Your task to perform on an android device: Go to Yahoo.com Image 0: 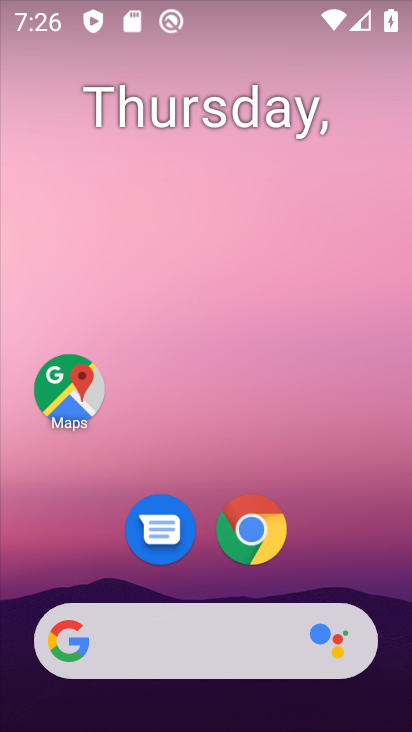
Step 0: drag from (375, 565) to (362, 205)
Your task to perform on an android device: Go to Yahoo.com Image 1: 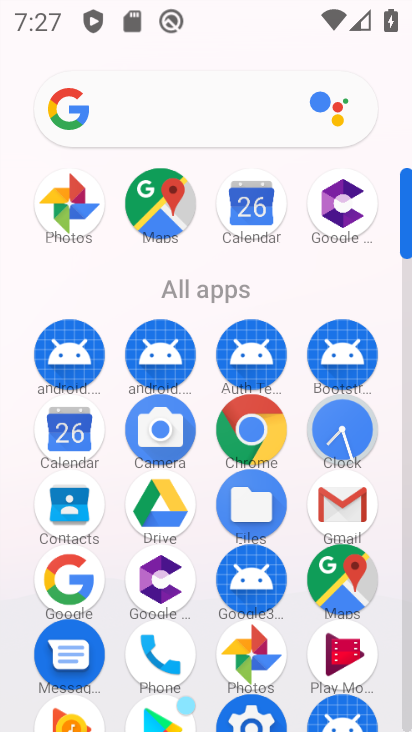
Step 1: click (255, 439)
Your task to perform on an android device: Go to Yahoo.com Image 2: 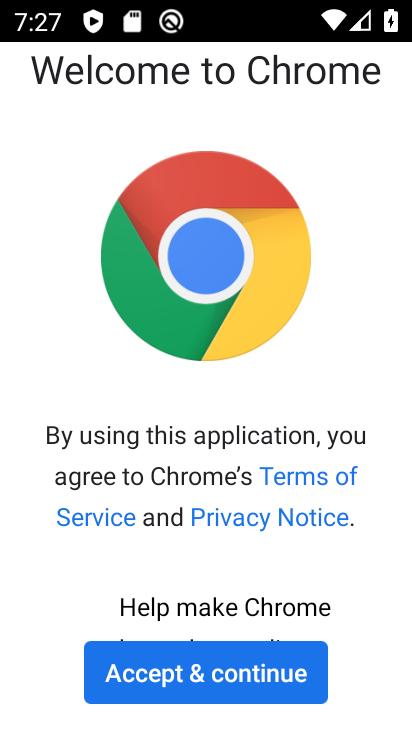
Step 2: click (203, 681)
Your task to perform on an android device: Go to Yahoo.com Image 3: 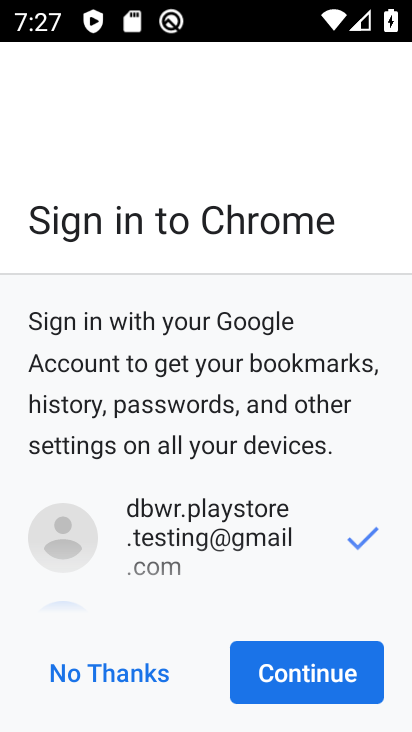
Step 3: click (256, 678)
Your task to perform on an android device: Go to Yahoo.com Image 4: 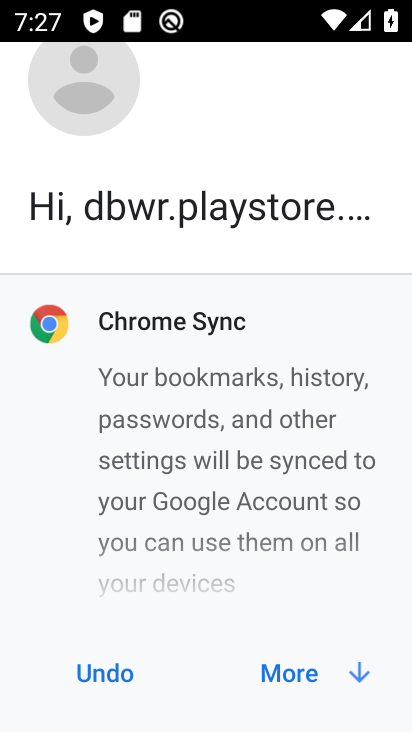
Step 4: click (275, 677)
Your task to perform on an android device: Go to Yahoo.com Image 5: 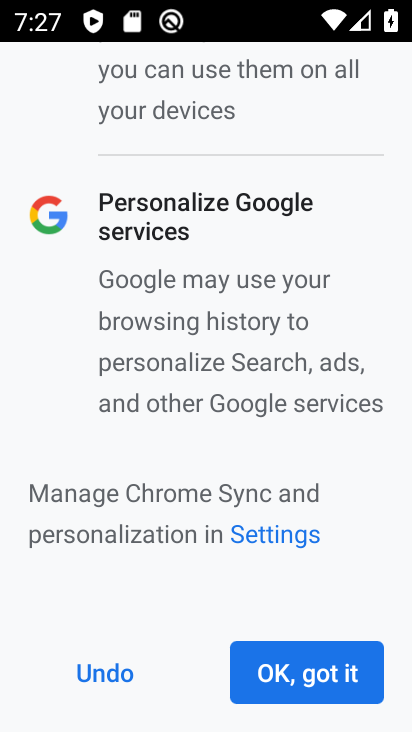
Step 5: click (275, 677)
Your task to perform on an android device: Go to Yahoo.com Image 6: 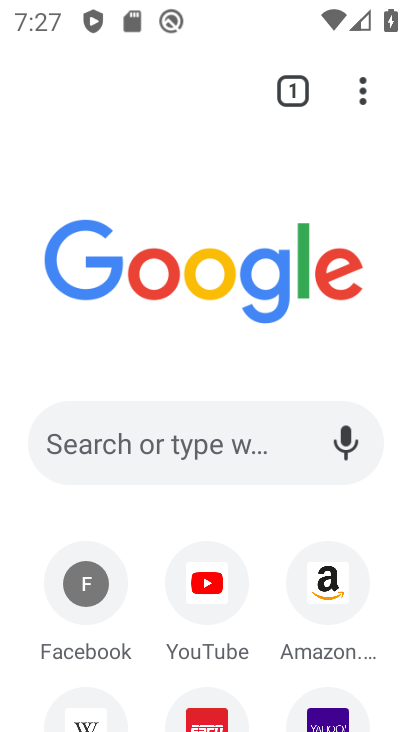
Step 6: click (248, 443)
Your task to perform on an android device: Go to Yahoo.com Image 7: 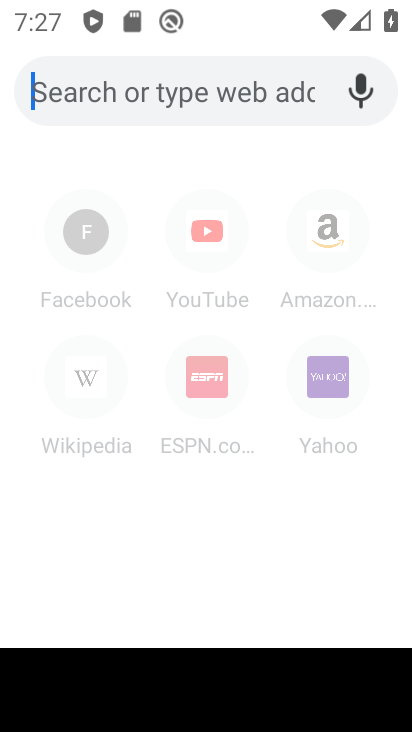
Step 7: type "yahoo.com"
Your task to perform on an android device: Go to Yahoo.com Image 8: 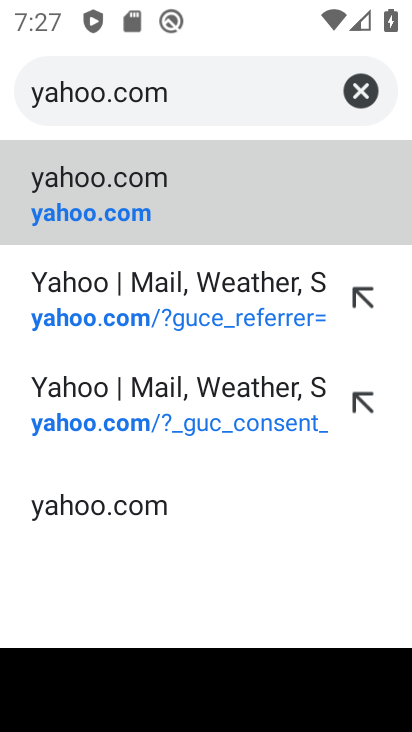
Step 8: click (162, 191)
Your task to perform on an android device: Go to Yahoo.com Image 9: 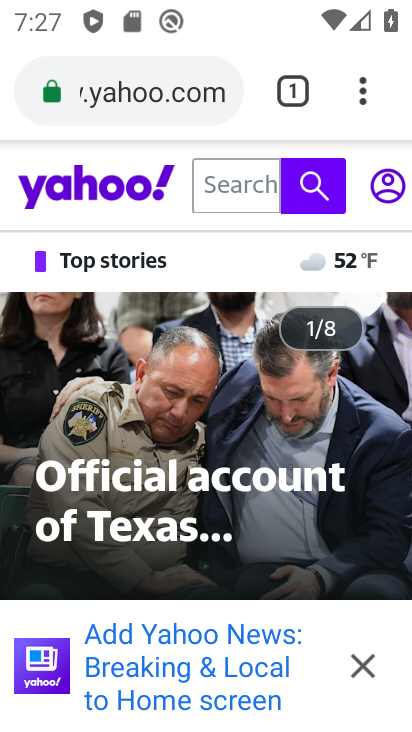
Step 9: task complete